Your task to perform on an android device: make emails show in primary in the gmail app Image 0: 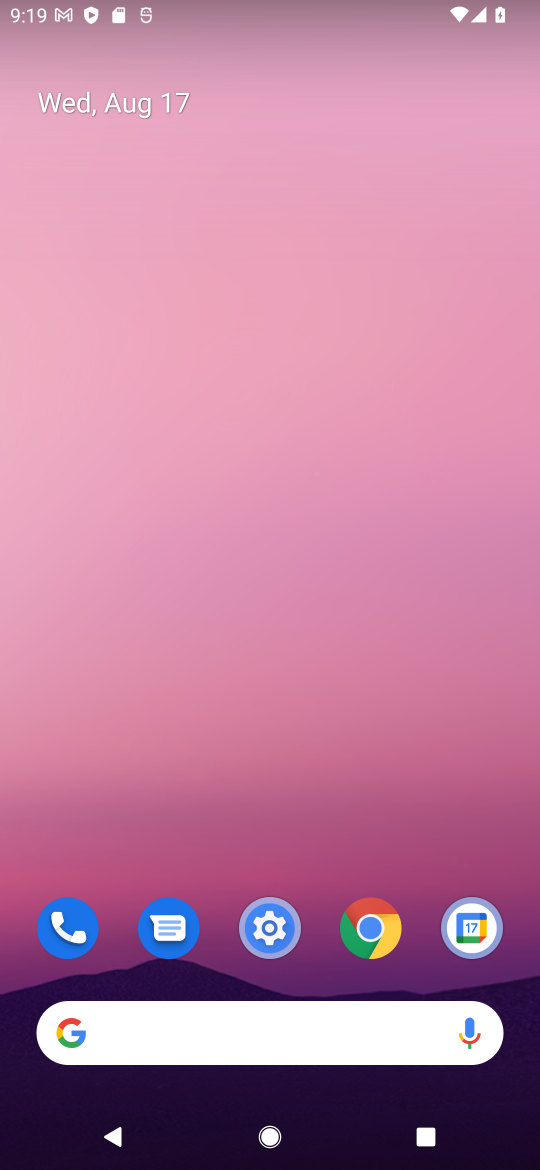
Step 0: drag from (355, 854) to (269, 336)
Your task to perform on an android device: make emails show in primary in the gmail app Image 1: 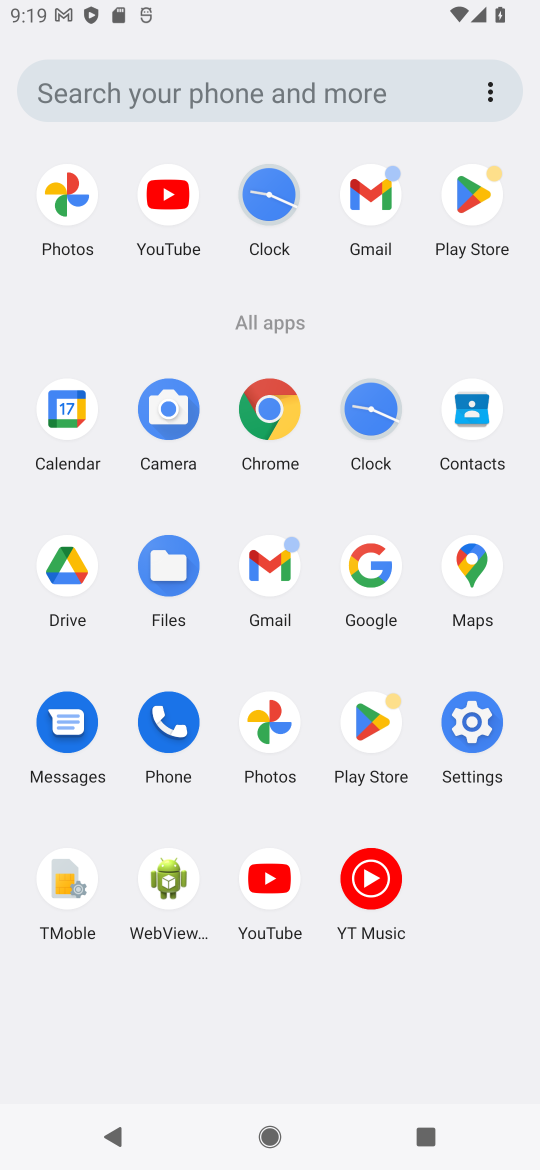
Step 1: click (254, 565)
Your task to perform on an android device: make emails show in primary in the gmail app Image 2: 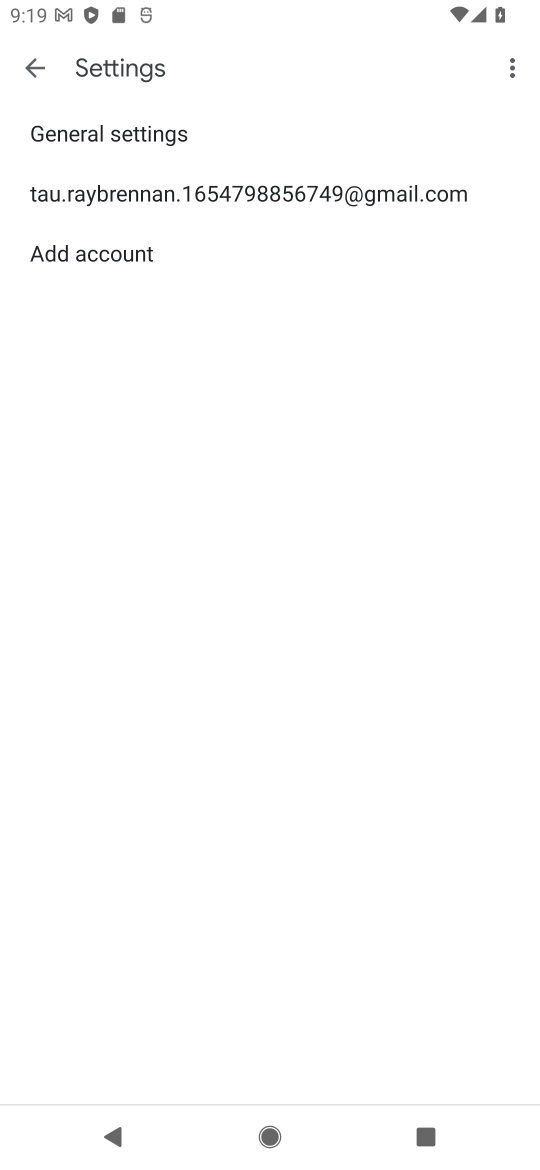
Step 2: click (206, 200)
Your task to perform on an android device: make emails show in primary in the gmail app Image 3: 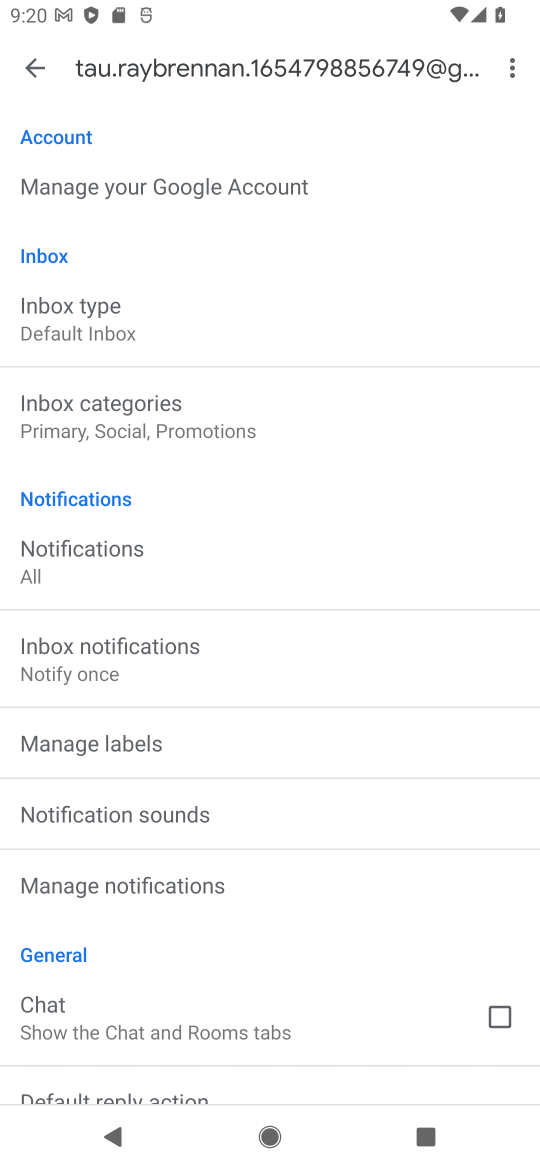
Step 3: click (162, 422)
Your task to perform on an android device: make emails show in primary in the gmail app Image 4: 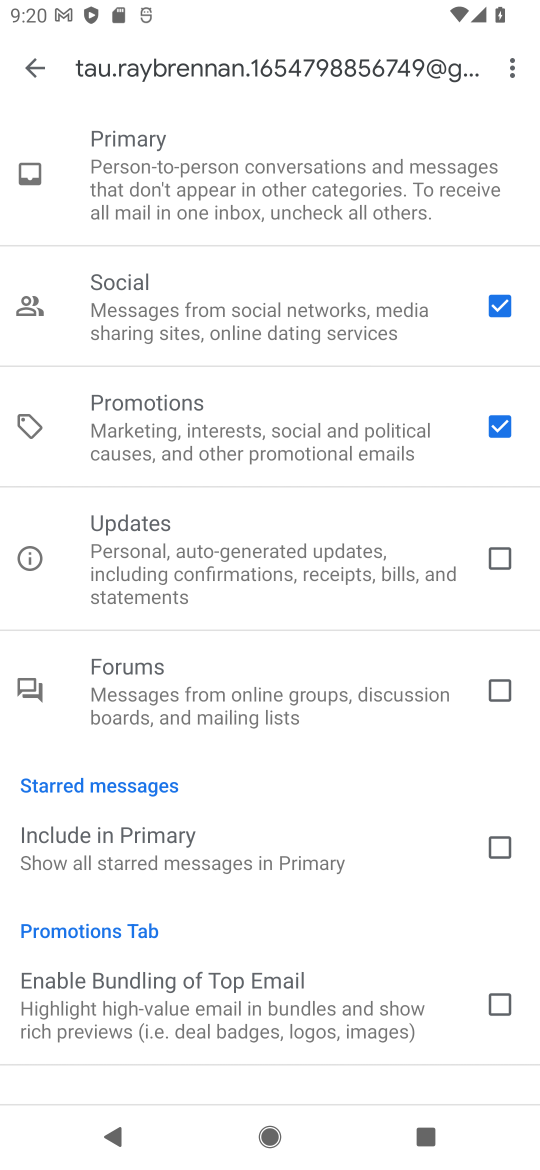
Step 4: click (492, 422)
Your task to perform on an android device: make emails show in primary in the gmail app Image 5: 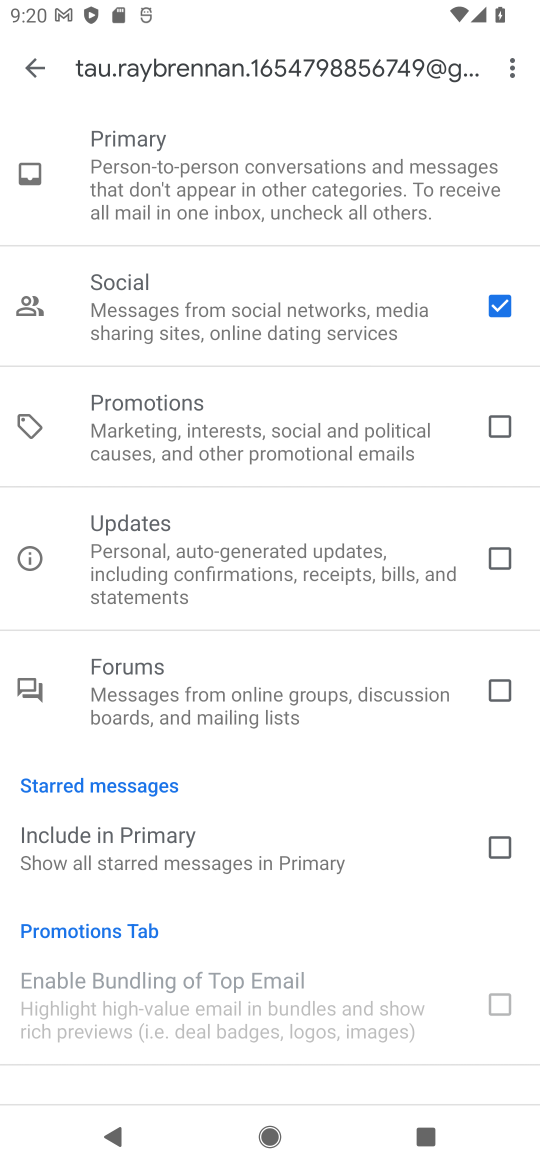
Step 5: click (493, 309)
Your task to perform on an android device: make emails show in primary in the gmail app Image 6: 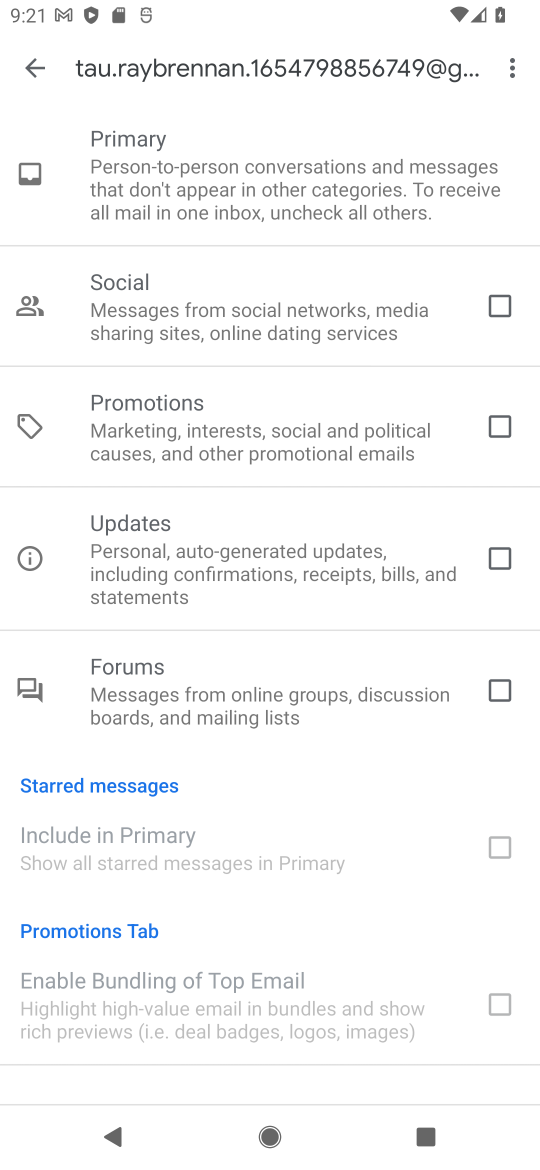
Step 6: task complete